Your task to perform on an android device: What is the recent news? Image 0: 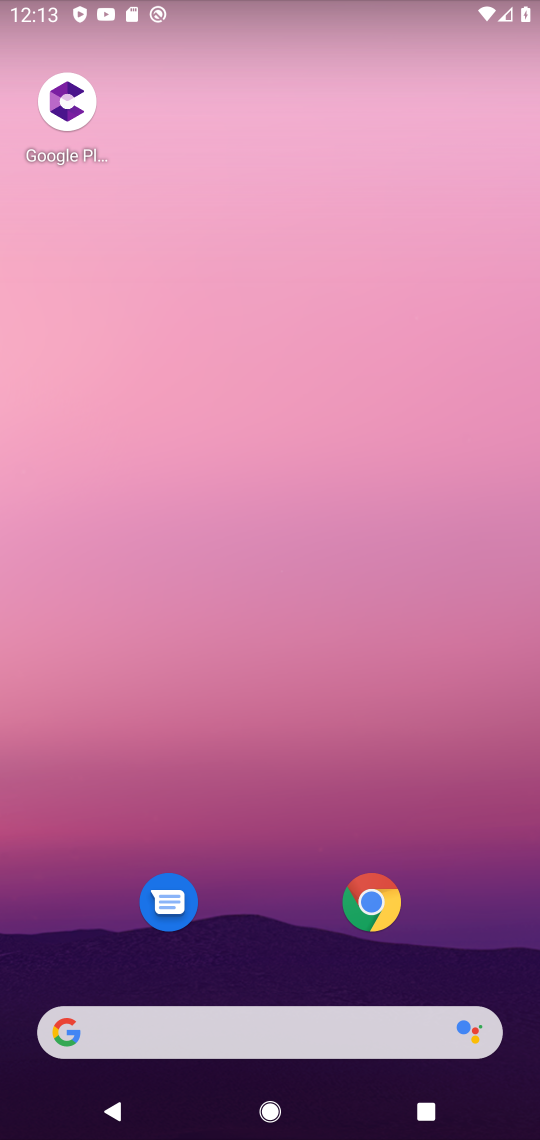
Step 0: drag from (14, 552) to (518, 556)
Your task to perform on an android device: What is the recent news? Image 1: 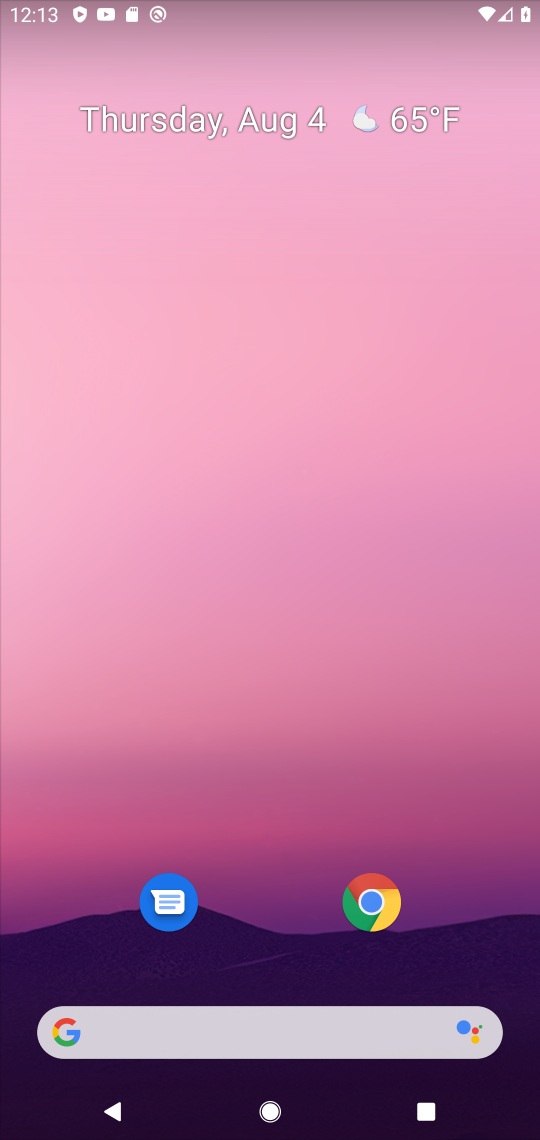
Step 1: task complete